Your task to perform on an android device: turn on javascript in the chrome app Image 0: 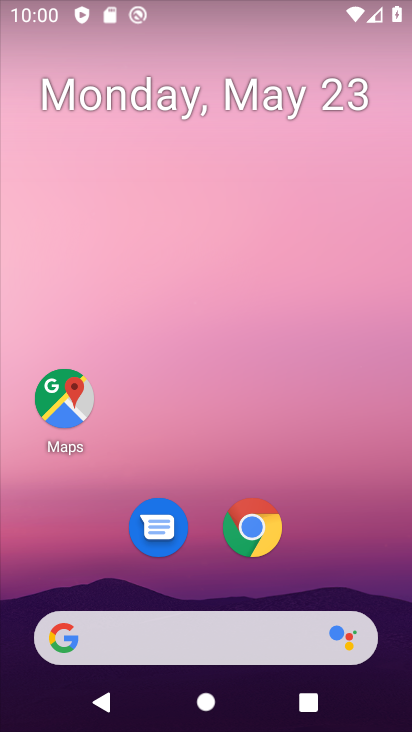
Step 0: click (244, 538)
Your task to perform on an android device: turn on javascript in the chrome app Image 1: 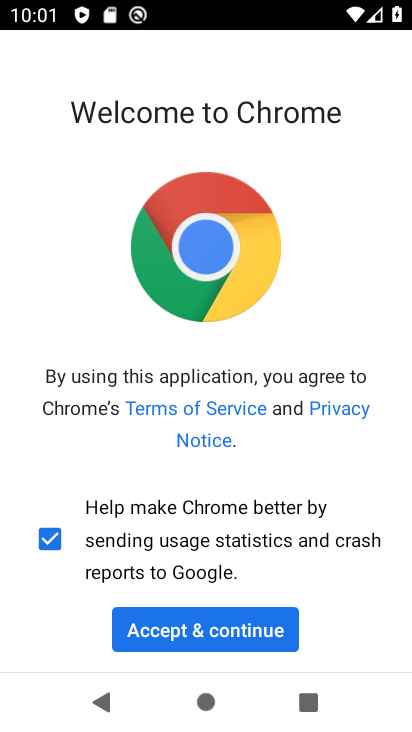
Step 1: click (256, 623)
Your task to perform on an android device: turn on javascript in the chrome app Image 2: 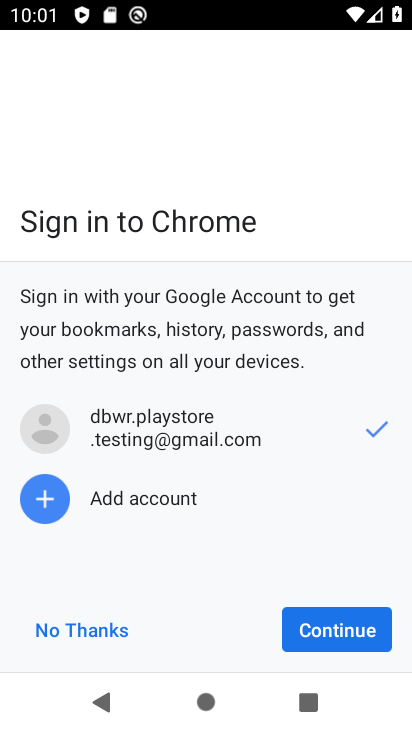
Step 2: click (370, 631)
Your task to perform on an android device: turn on javascript in the chrome app Image 3: 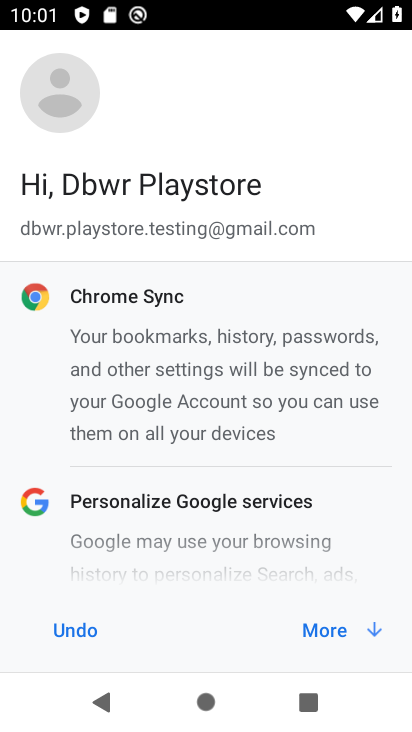
Step 3: click (344, 635)
Your task to perform on an android device: turn on javascript in the chrome app Image 4: 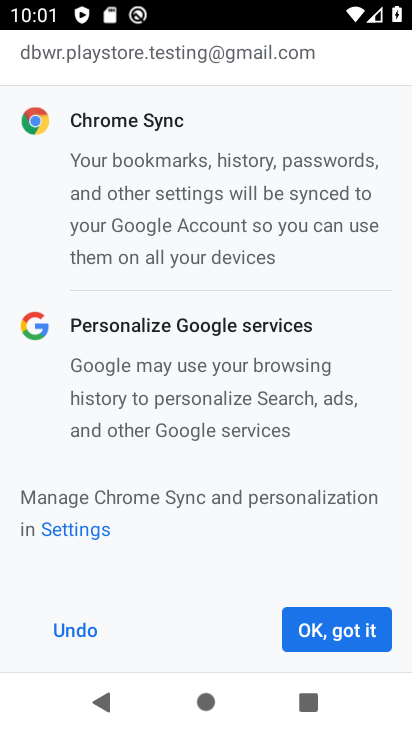
Step 4: click (344, 635)
Your task to perform on an android device: turn on javascript in the chrome app Image 5: 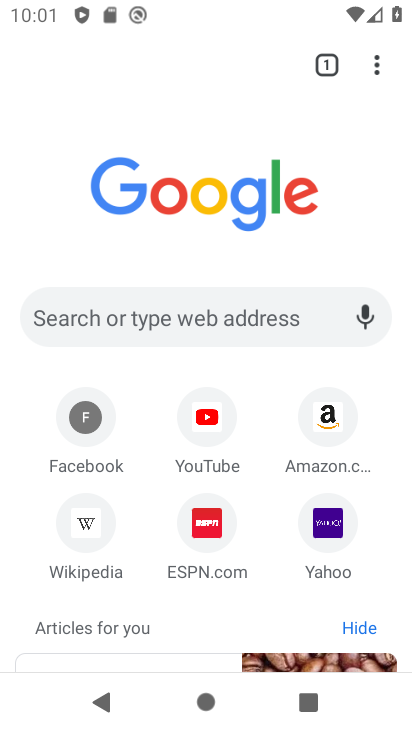
Step 5: click (382, 65)
Your task to perform on an android device: turn on javascript in the chrome app Image 6: 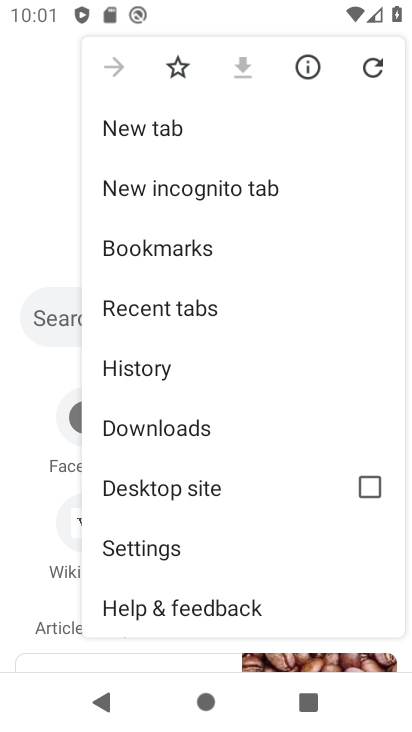
Step 6: click (195, 546)
Your task to perform on an android device: turn on javascript in the chrome app Image 7: 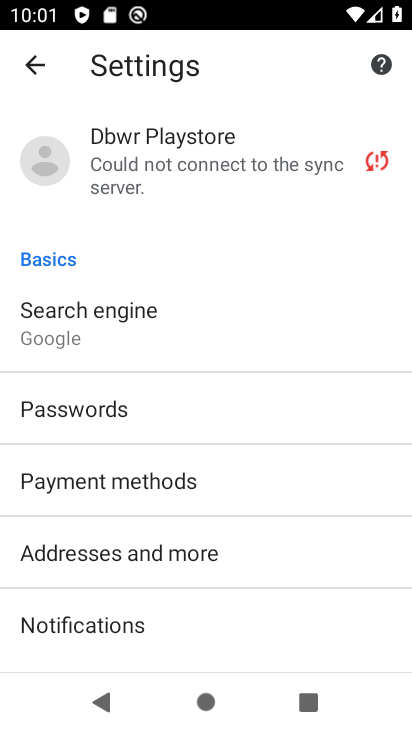
Step 7: drag from (209, 619) to (199, 129)
Your task to perform on an android device: turn on javascript in the chrome app Image 8: 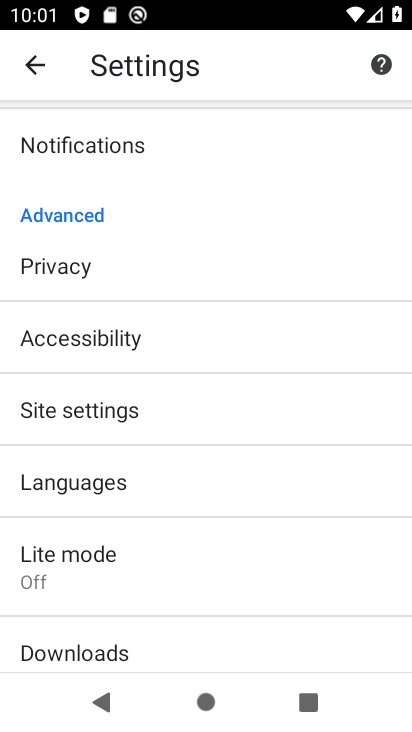
Step 8: click (184, 423)
Your task to perform on an android device: turn on javascript in the chrome app Image 9: 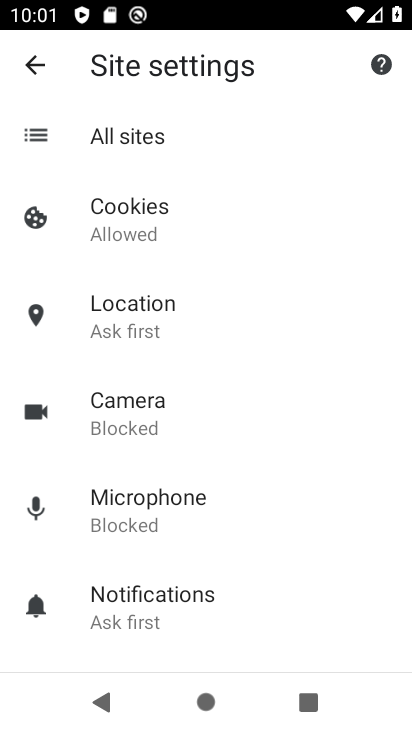
Step 9: drag from (237, 594) to (210, 169)
Your task to perform on an android device: turn on javascript in the chrome app Image 10: 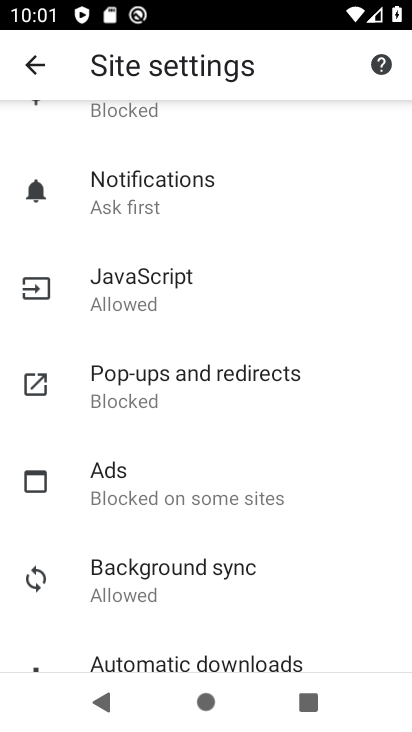
Step 10: click (212, 280)
Your task to perform on an android device: turn on javascript in the chrome app Image 11: 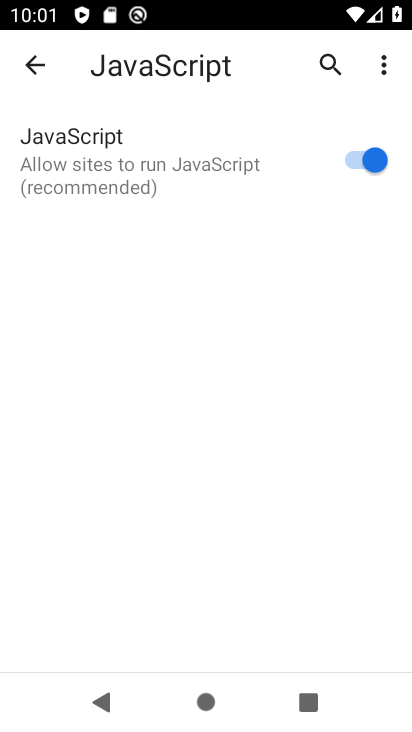
Step 11: task complete